Your task to perform on an android device: Clear all items from cart on costco.com. Search for lg ultragear on costco.com, select the first entry, add it to the cart, then select checkout. Image 0: 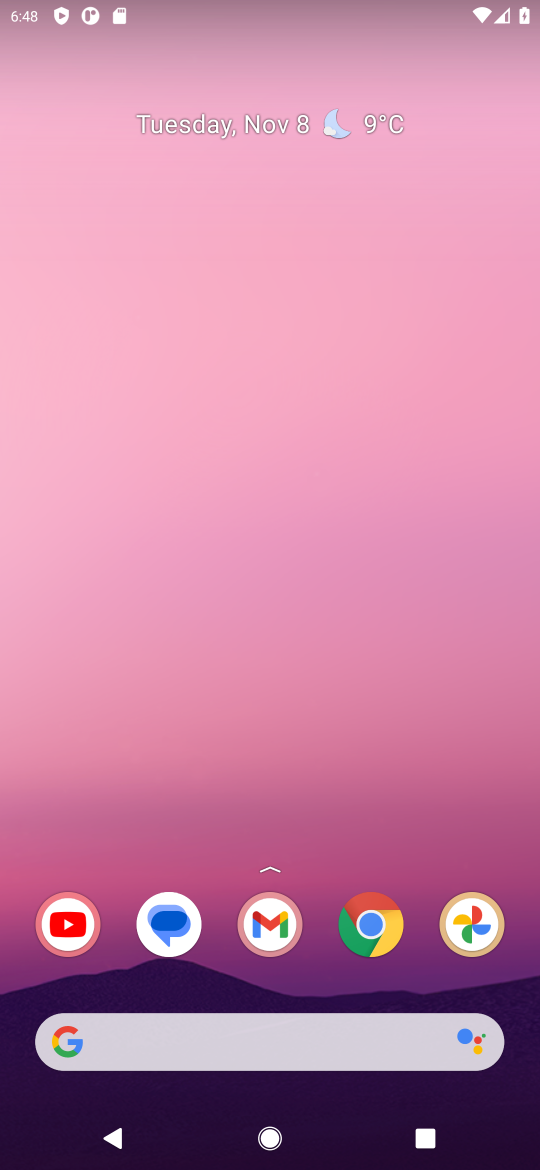
Step 0: click (287, 1035)
Your task to perform on an android device: Clear all items from cart on costco.com. Search for lg ultragear on costco.com, select the first entry, add it to the cart, then select checkout. Image 1: 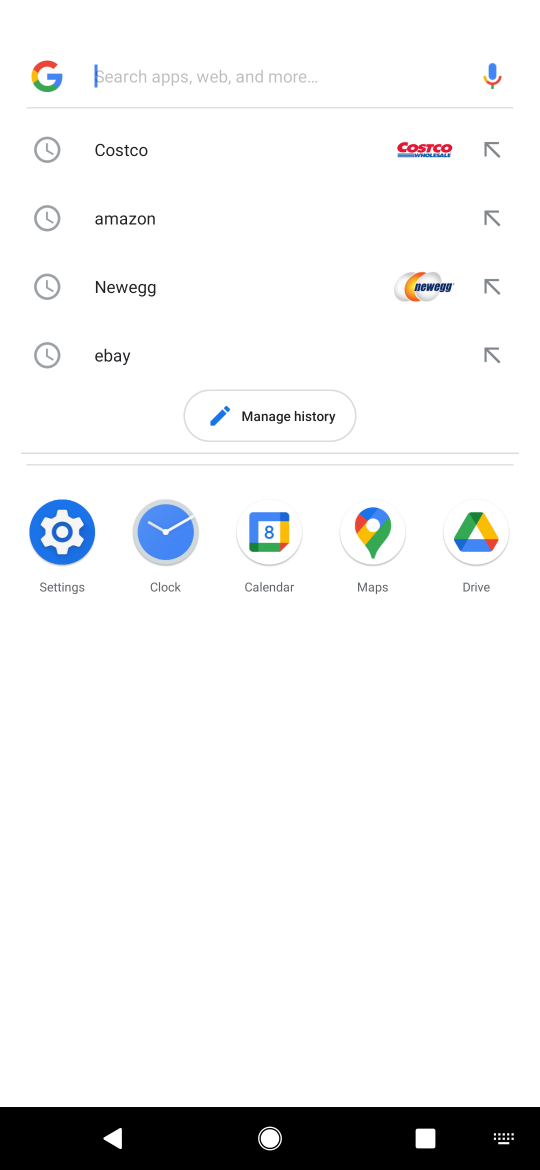
Step 1: click (323, 145)
Your task to perform on an android device: Clear all items from cart on costco.com. Search for lg ultragear on costco.com, select the first entry, add it to the cart, then select checkout. Image 2: 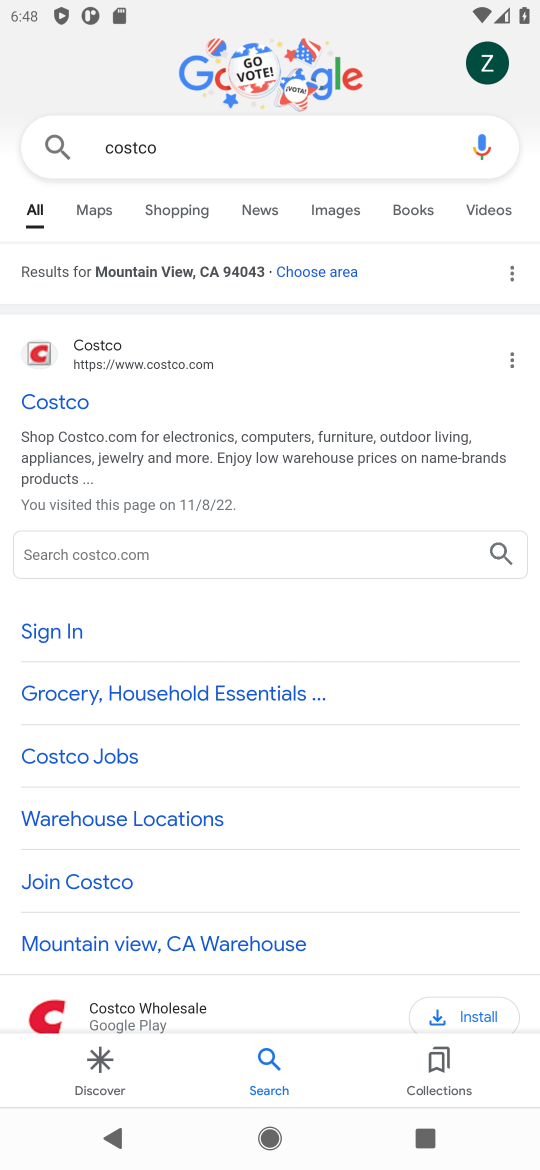
Step 2: click (65, 411)
Your task to perform on an android device: Clear all items from cart on costco.com. Search for lg ultragear on costco.com, select the first entry, add it to the cart, then select checkout. Image 3: 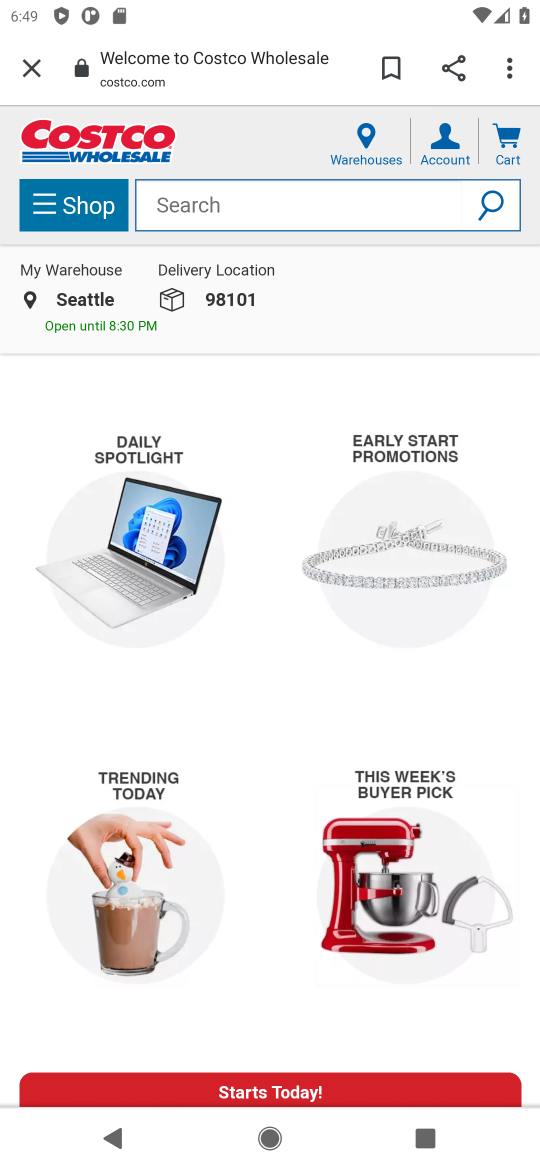
Step 3: click (308, 211)
Your task to perform on an android device: Clear all items from cart on costco.com. Search for lg ultragear on costco.com, select the first entry, add it to the cart, then select checkout. Image 4: 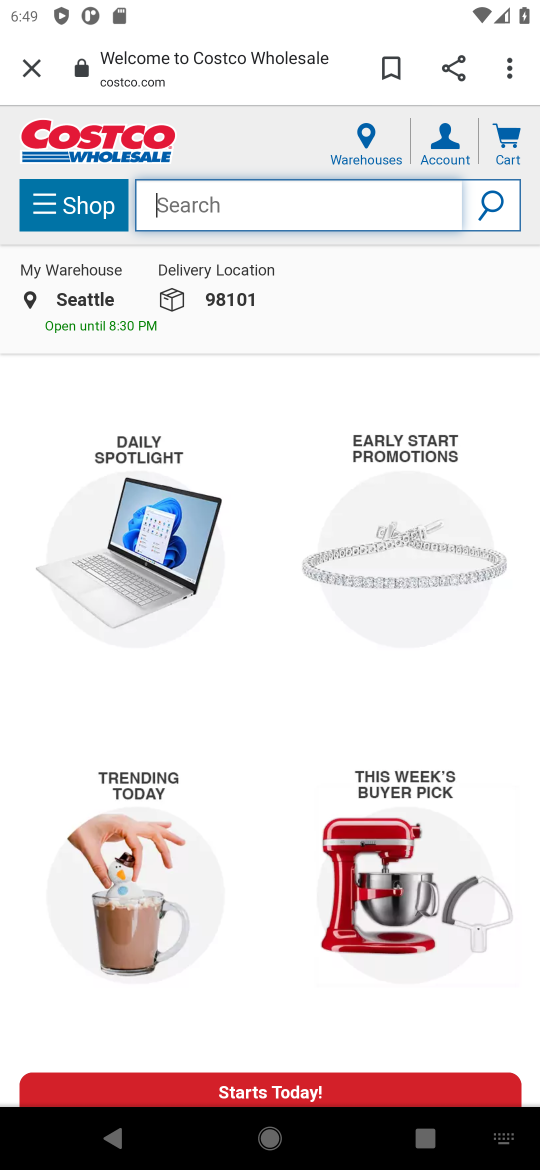
Step 4: type "lg ultragear"
Your task to perform on an android device: Clear all items from cart on costco.com. Search for lg ultragear on costco.com, select the first entry, add it to the cart, then select checkout. Image 5: 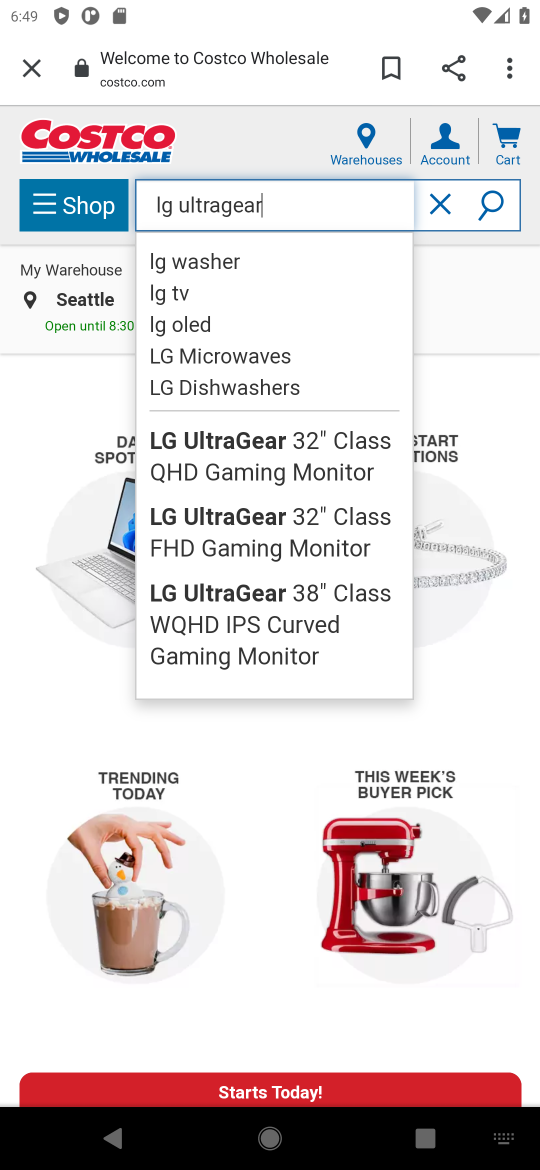
Step 5: click (303, 438)
Your task to perform on an android device: Clear all items from cart on costco.com. Search for lg ultragear on costco.com, select the first entry, add it to the cart, then select checkout. Image 6: 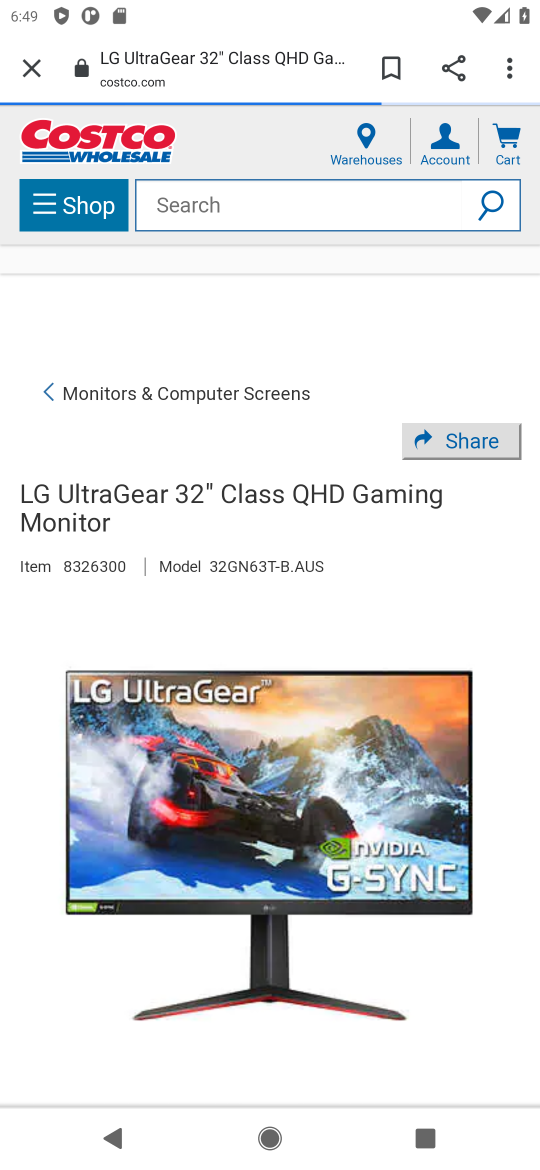
Step 6: drag from (218, 807) to (256, 394)
Your task to perform on an android device: Clear all items from cart on costco.com. Search for lg ultragear on costco.com, select the first entry, add it to the cart, then select checkout. Image 7: 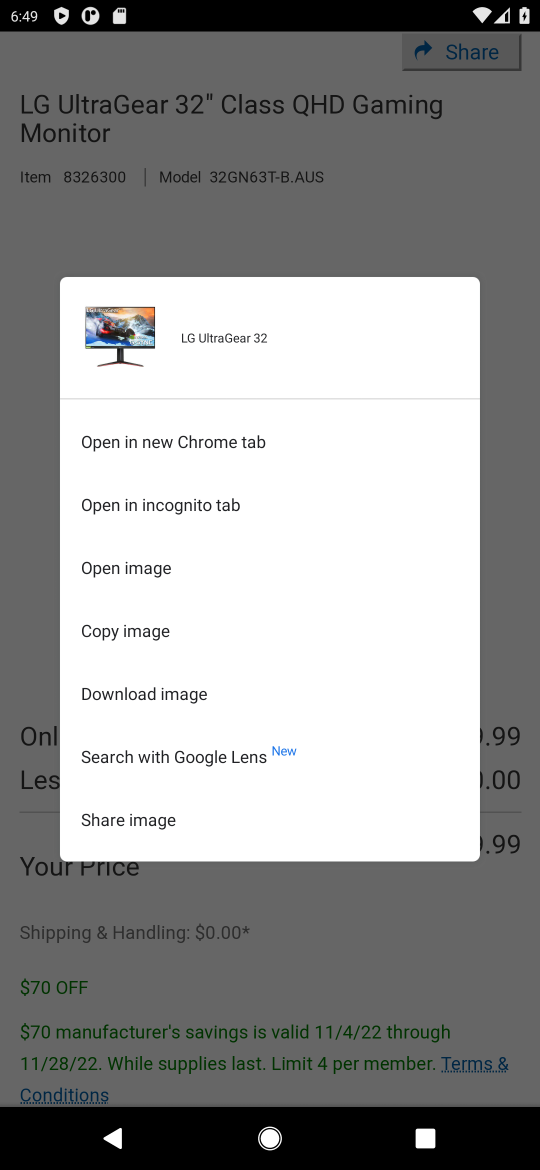
Step 7: click (209, 873)
Your task to perform on an android device: Clear all items from cart on costco.com. Search for lg ultragear on costco.com, select the first entry, add it to the cart, then select checkout. Image 8: 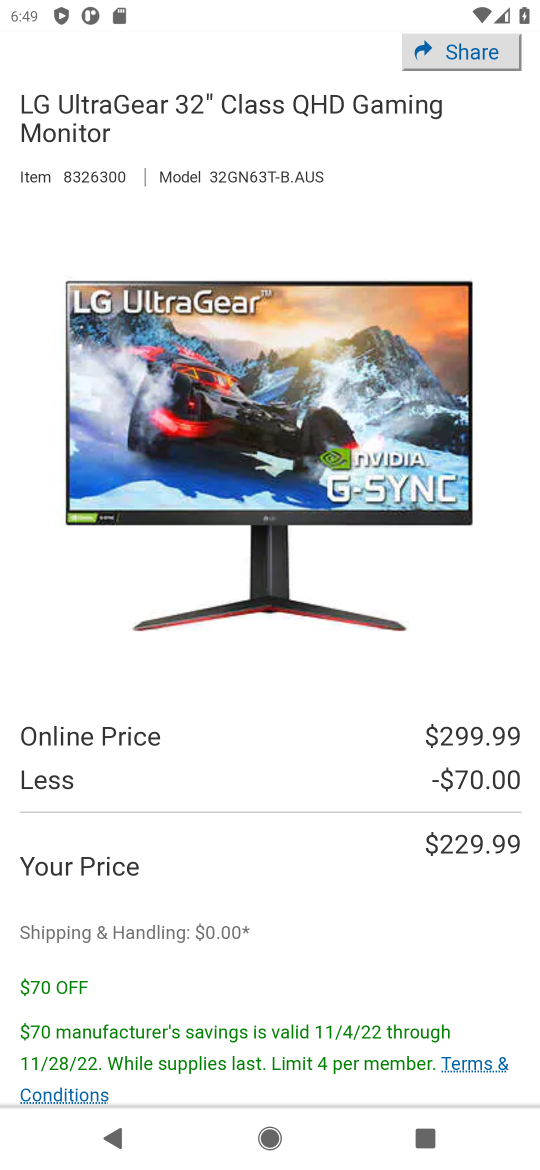
Step 8: drag from (209, 873) to (245, 536)
Your task to perform on an android device: Clear all items from cart on costco.com. Search for lg ultragear on costco.com, select the first entry, add it to the cart, then select checkout. Image 9: 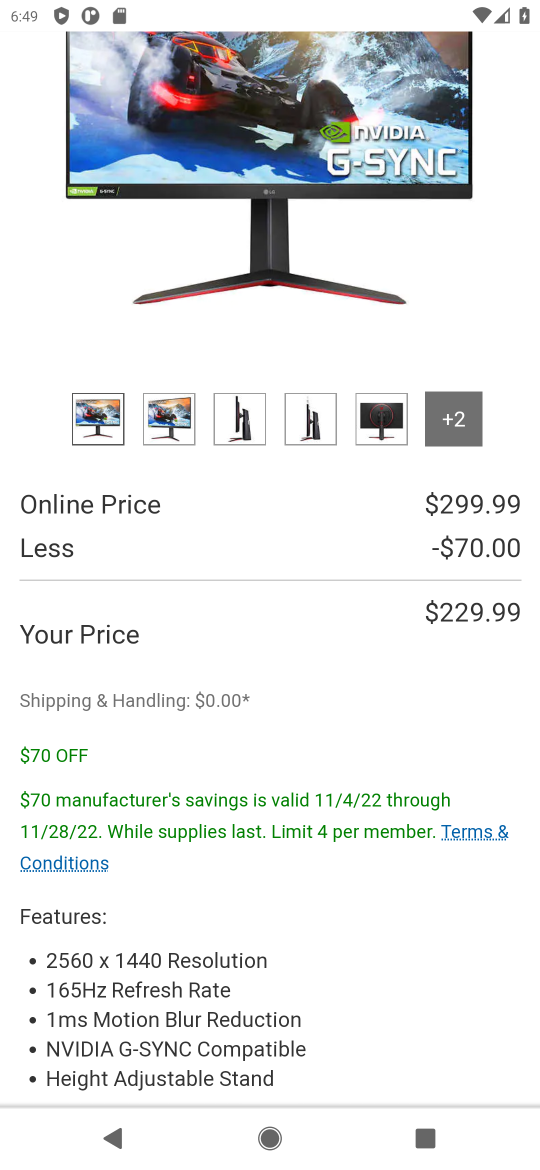
Step 9: drag from (222, 600) to (225, 541)
Your task to perform on an android device: Clear all items from cart on costco.com. Search for lg ultragear on costco.com, select the first entry, add it to the cart, then select checkout. Image 10: 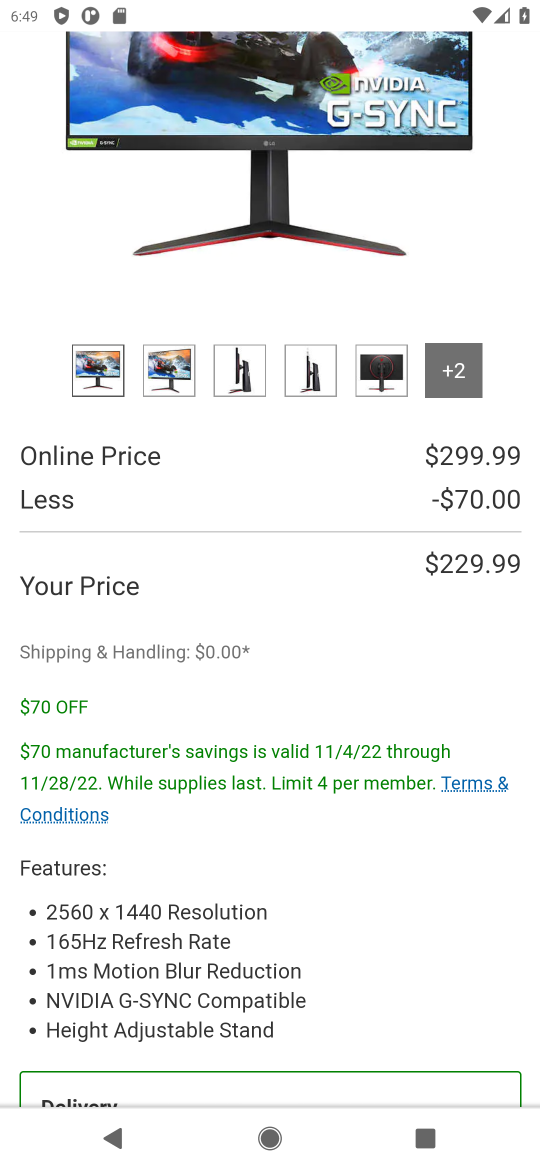
Step 10: drag from (331, 849) to (329, 579)
Your task to perform on an android device: Clear all items from cart on costco.com. Search for lg ultragear on costco.com, select the first entry, add it to the cart, then select checkout. Image 11: 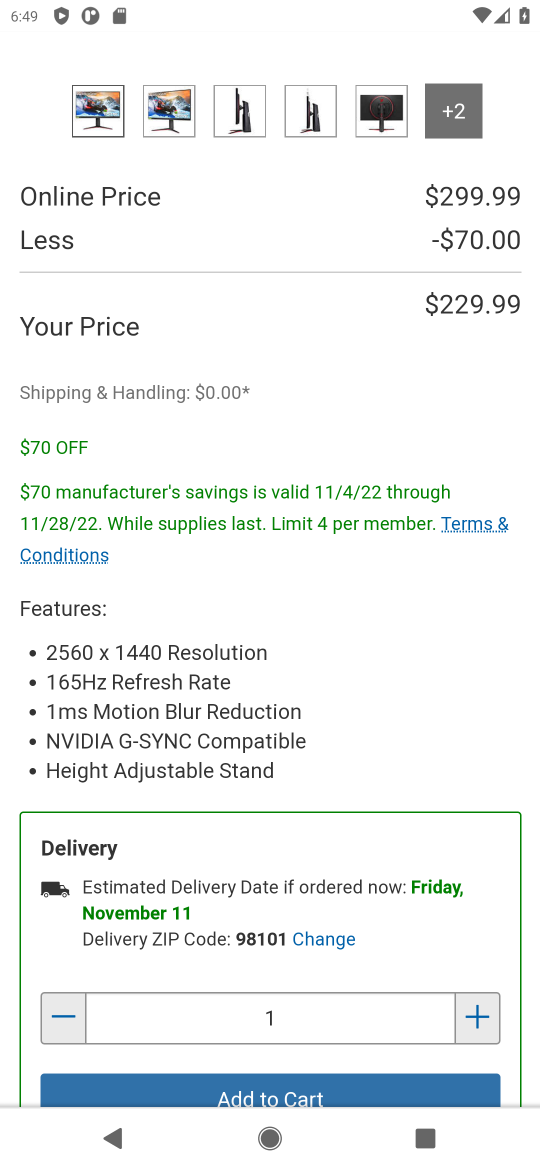
Step 11: click (245, 1098)
Your task to perform on an android device: Clear all items from cart on costco.com. Search for lg ultragear on costco.com, select the first entry, add it to the cart, then select checkout. Image 12: 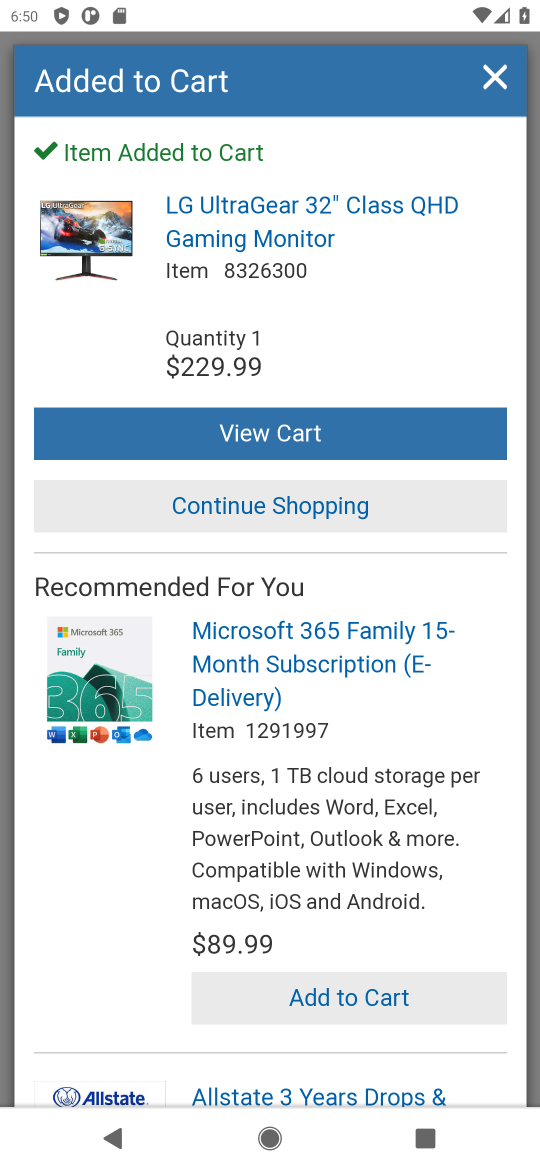
Step 12: click (267, 433)
Your task to perform on an android device: Clear all items from cart on costco.com. Search for lg ultragear on costco.com, select the first entry, add it to the cart, then select checkout. Image 13: 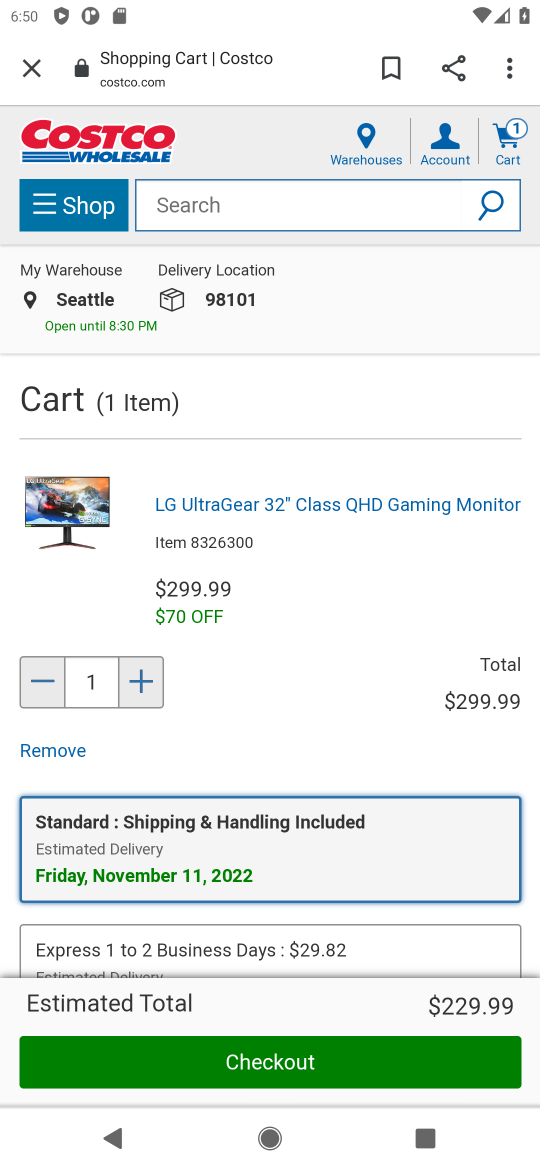
Step 13: click (261, 1061)
Your task to perform on an android device: Clear all items from cart on costco.com. Search for lg ultragear on costco.com, select the first entry, add it to the cart, then select checkout. Image 14: 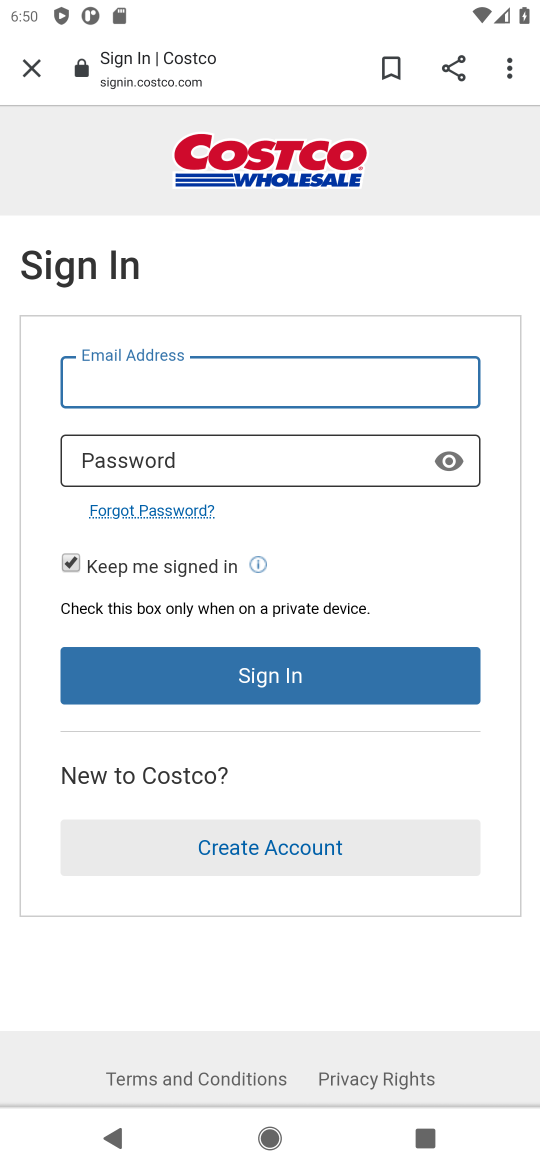
Step 14: task complete